Your task to perform on an android device: set an alarm Image 0: 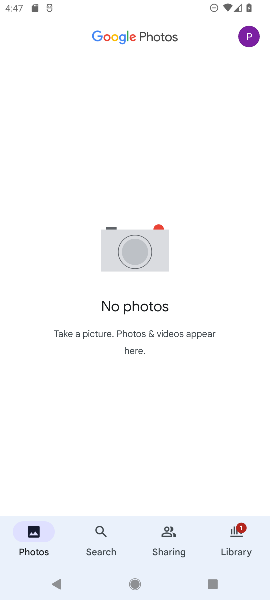
Step 0: press home button
Your task to perform on an android device: set an alarm Image 1: 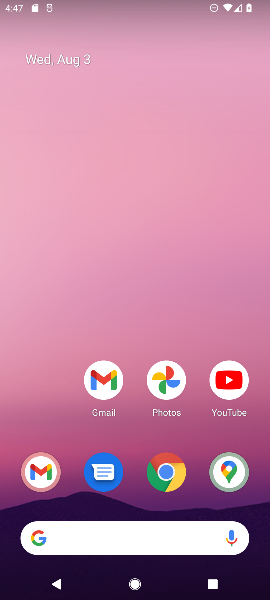
Step 1: drag from (245, 504) to (71, 34)
Your task to perform on an android device: set an alarm Image 2: 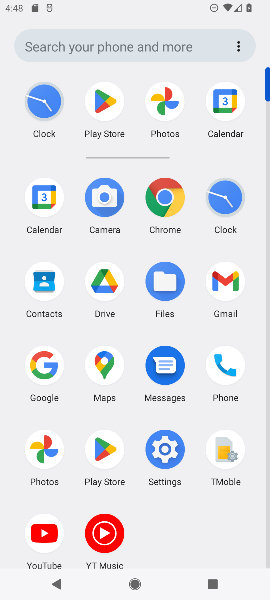
Step 2: click (240, 179)
Your task to perform on an android device: set an alarm Image 3: 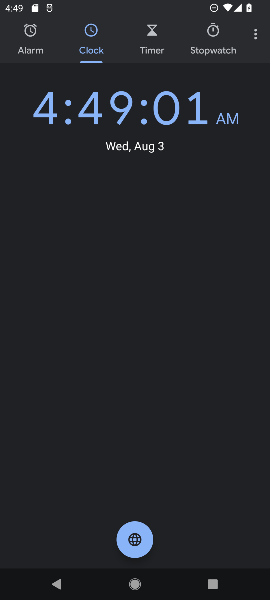
Step 3: click (32, 31)
Your task to perform on an android device: set an alarm Image 4: 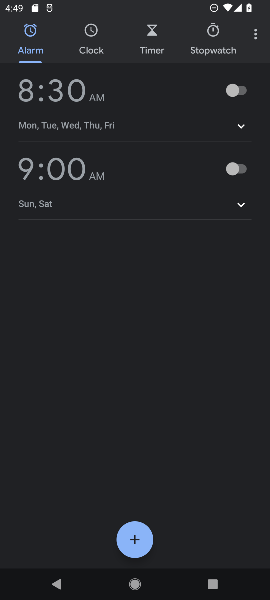
Step 4: click (242, 96)
Your task to perform on an android device: set an alarm Image 5: 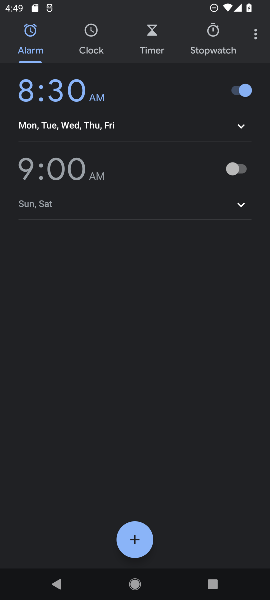
Step 5: task complete